Your task to perform on an android device: install app "Walmart Shopping & Grocery" Image 0: 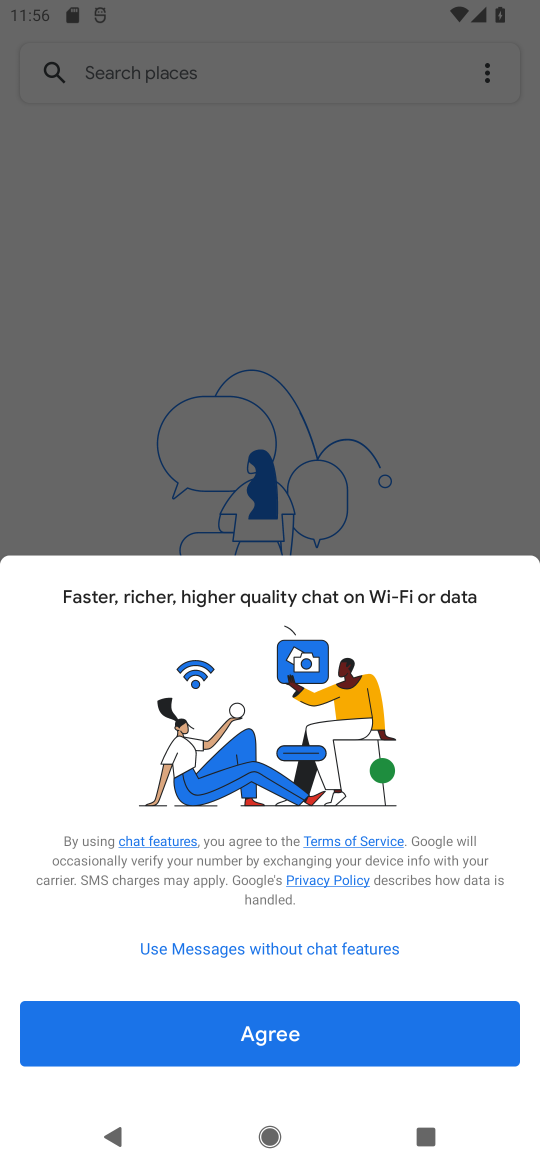
Step 0: press home button
Your task to perform on an android device: install app "Walmart Shopping & Grocery" Image 1: 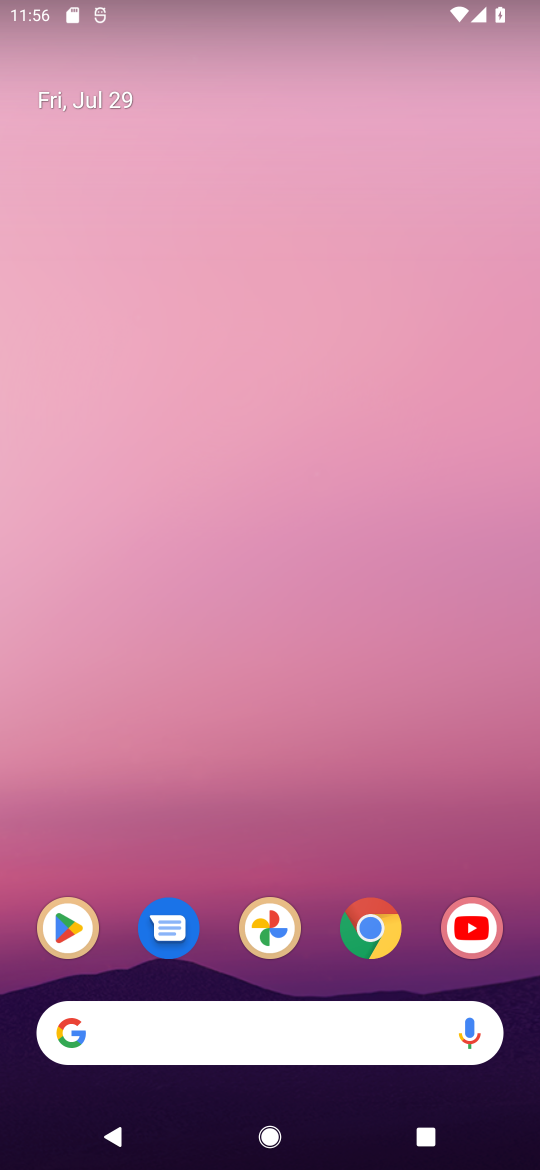
Step 1: drag from (431, 864) to (440, 4)
Your task to perform on an android device: install app "Walmart Shopping & Grocery" Image 2: 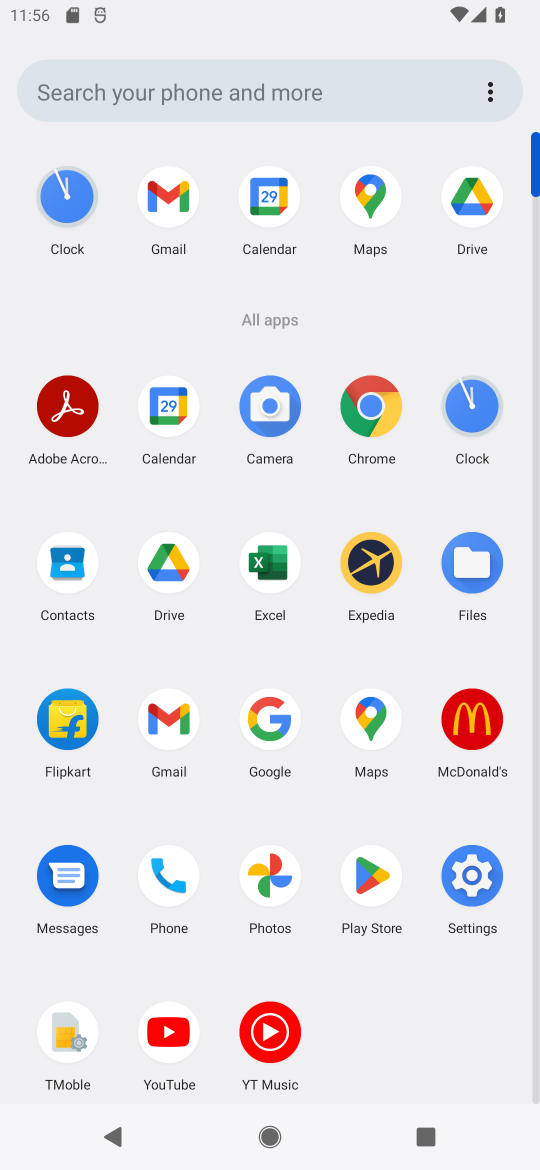
Step 2: click (370, 872)
Your task to perform on an android device: install app "Walmart Shopping & Grocery" Image 3: 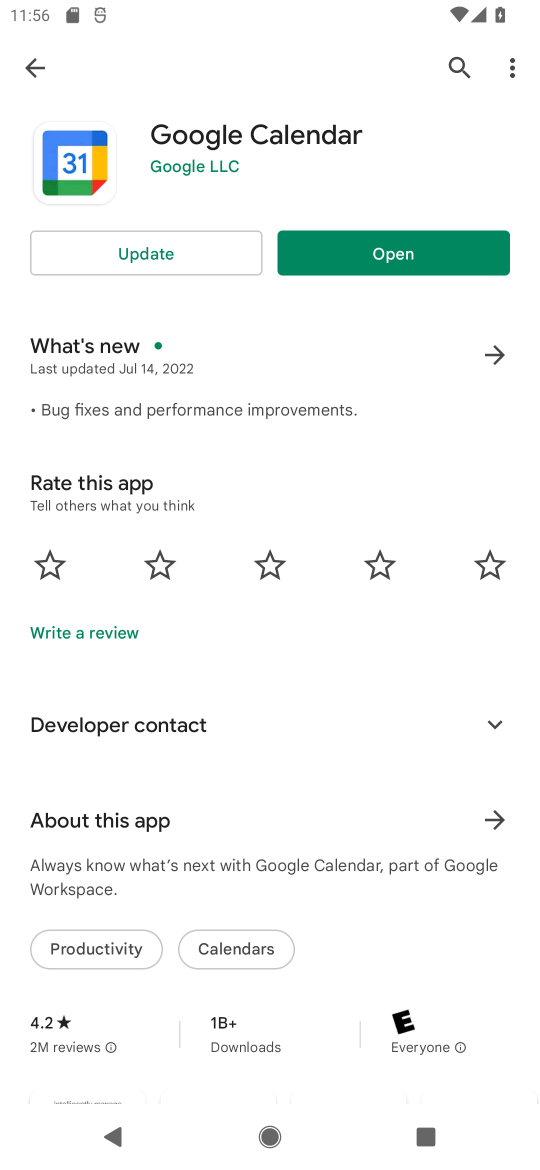
Step 3: click (457, 60)
Your task to perform on an android device: install app "Walmart Shopping & Grocery" Image 4: 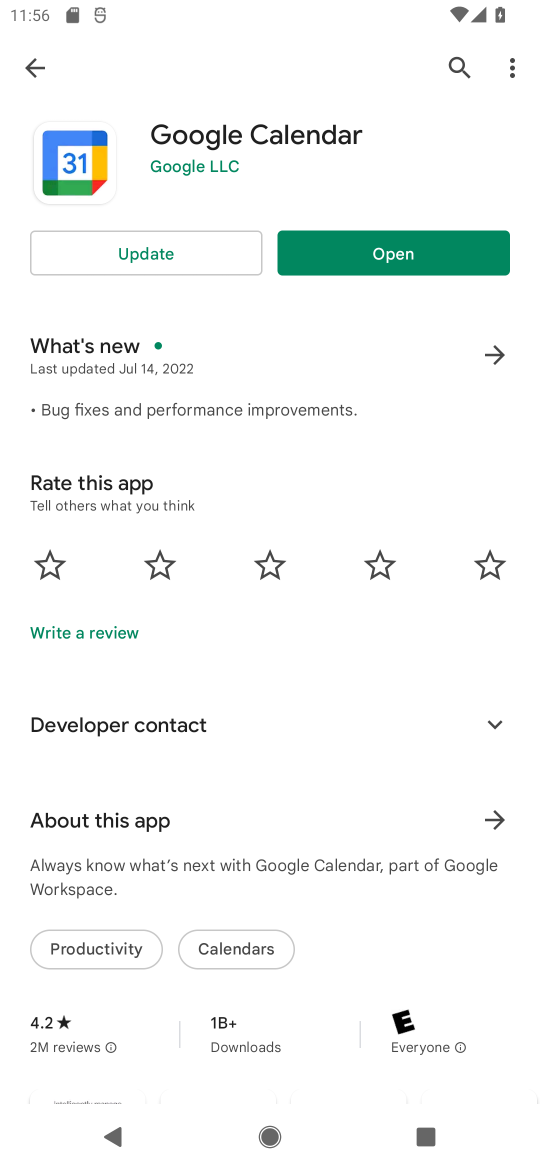
Step 4: click (462, 65)
Your task to perform on an android device: install app "Walmart Shopping & Grocery" Image 5: 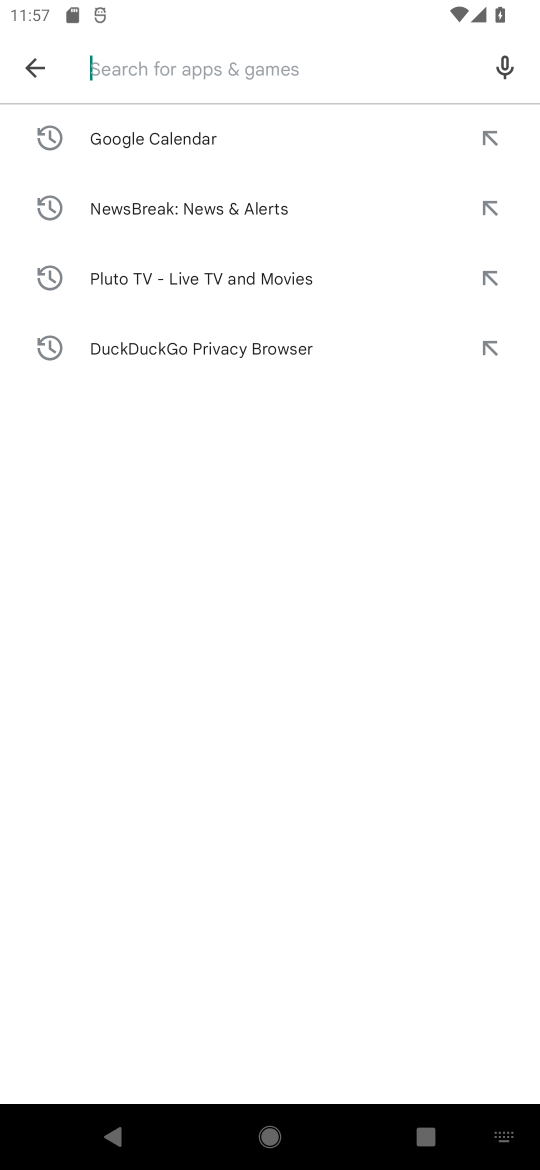
Step 5: type "Walmart Shopping & Grocery"
Your task to perform on an android device: install app "Walmart Shopping & Grocery" Image 6: 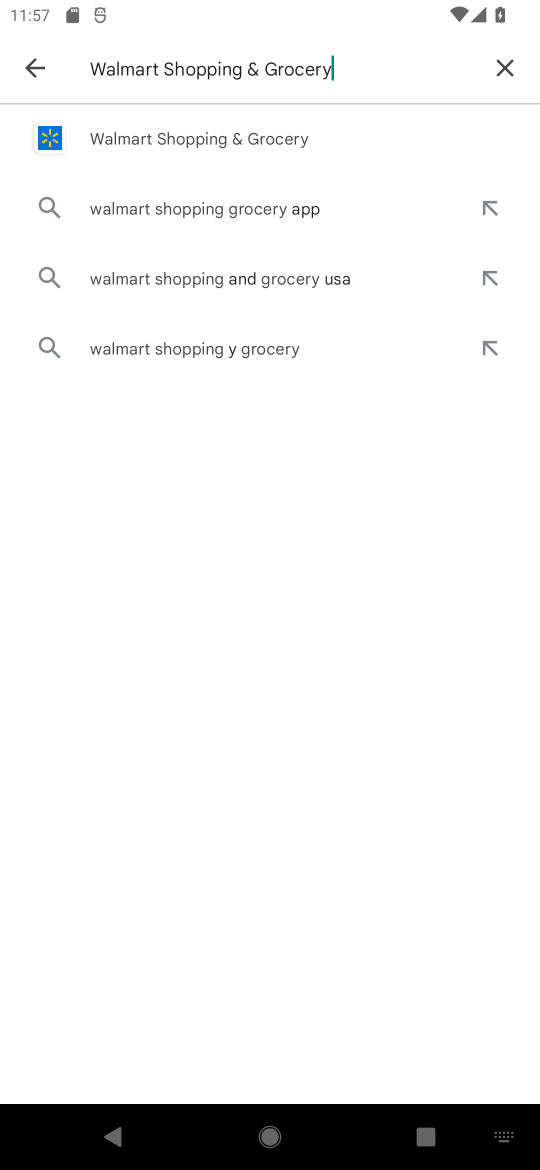
Step 6: press enter
Your task to perform on an android device: install app "Walmart Shopping & Grocery" Image 7: 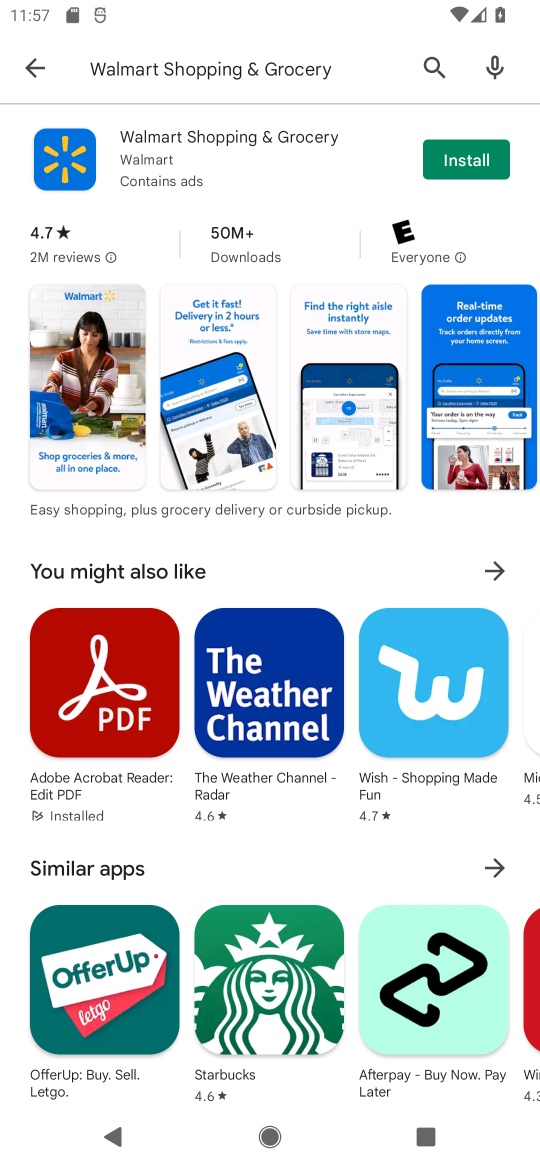
Step 7: click (480, 156)
Your task to perform on an android device: install app "Walmart Shopping & Grocery" Image 8: 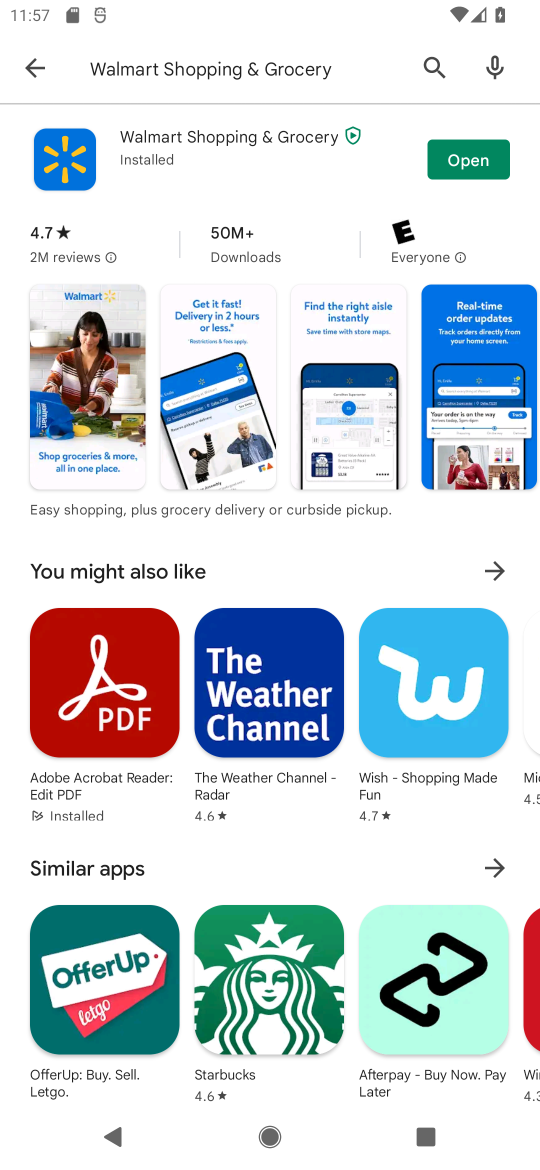
Step 8: task complete